Your task to perform on an android device: turn on improve location accuracy Image 0: 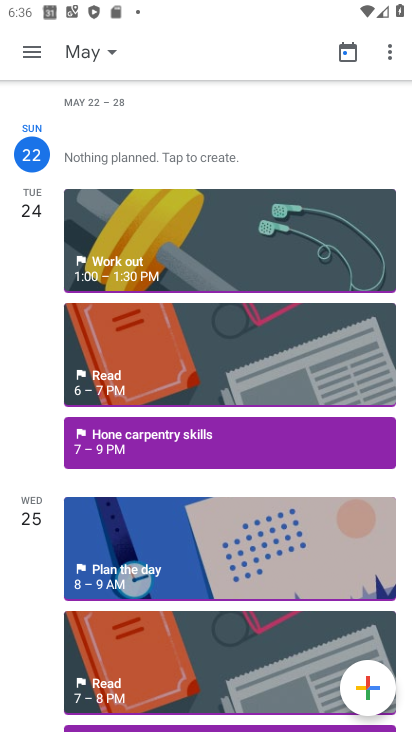
Step 0: press home button
Your task to perform on an android device: turn on improve location accuracy Image 1: 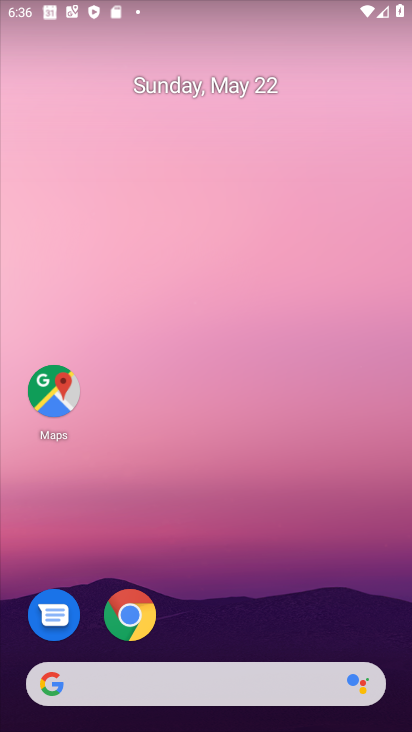
Step 1: drag from (266, 558) to (173, 154)
Your task to perform on an android device: turn on improve location accuracy Image 2: 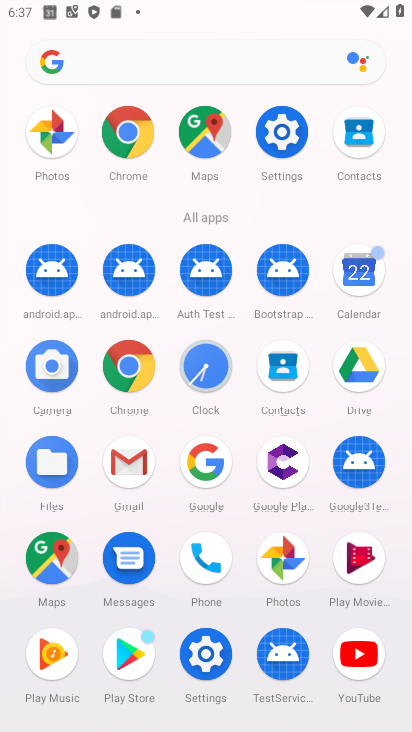
Step 2: click (281, 132)
Your task to perform on an android device: turn on improve location accuracy Image 3: 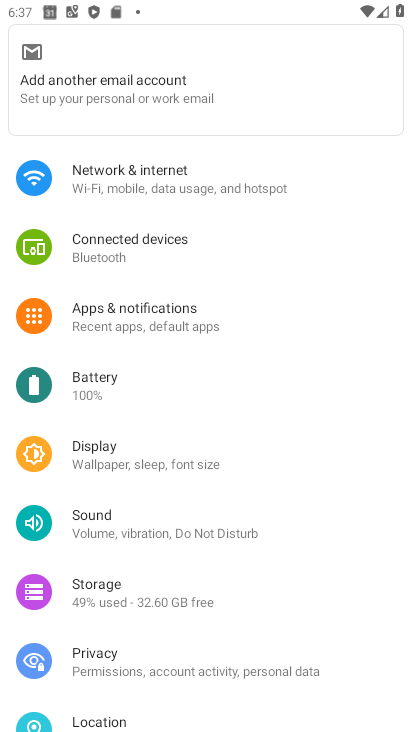
Step 3: drag from (269, 462) to (244, 322)
Your task to perform on an android device: turn on improve location accuracy Image 4: 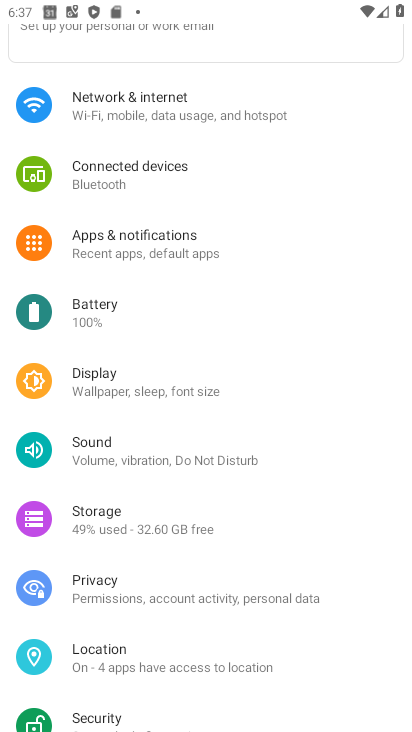
Step 4: click (106, 647)
Your task to perform on an android device: turn on improve location accuracy Image 5: 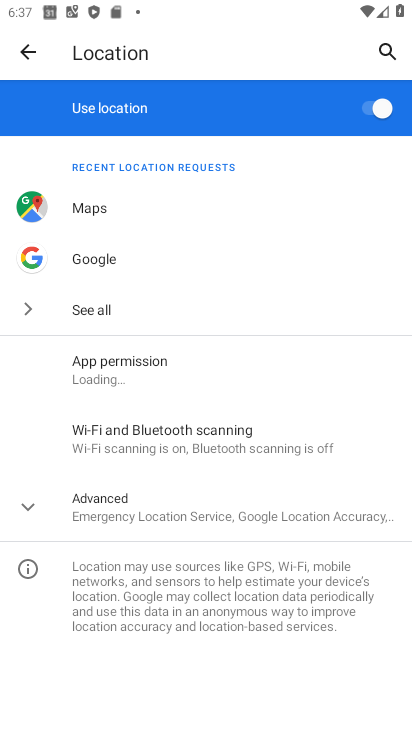
Step 5: click (31, 502)
Your task to perform on an android device: turn on improve location accuracy Image 6: 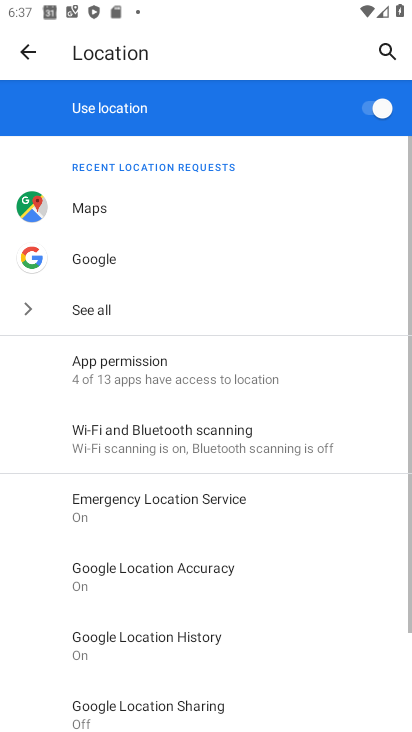
Step 6: click (167, 559)
Your task to perform on an android device: turn on improve location accuracy Image 7: 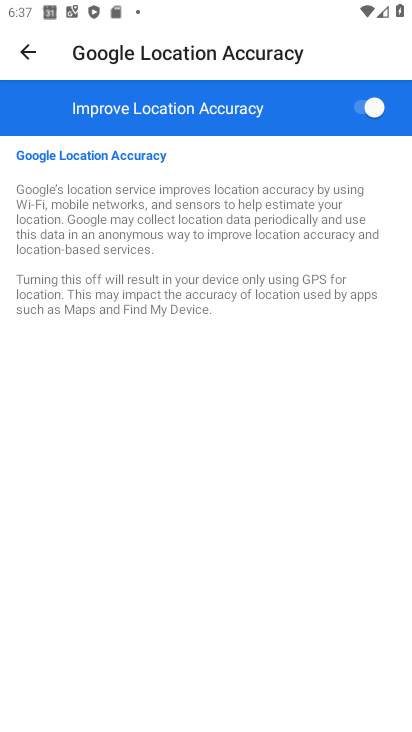
Step 7: task complete